Your task to perform on an android device: find which apps use the phone's location Image 0: 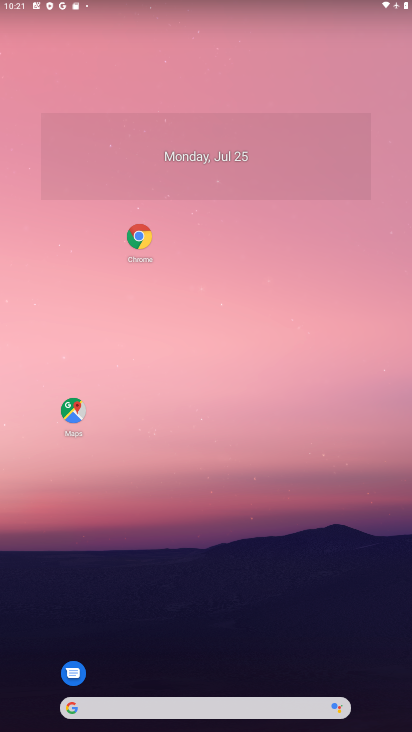
Step 0: drag from (254, 674) to (259, 152)
Your task to perform on an android device: find which apps use the phone's location Image 1: 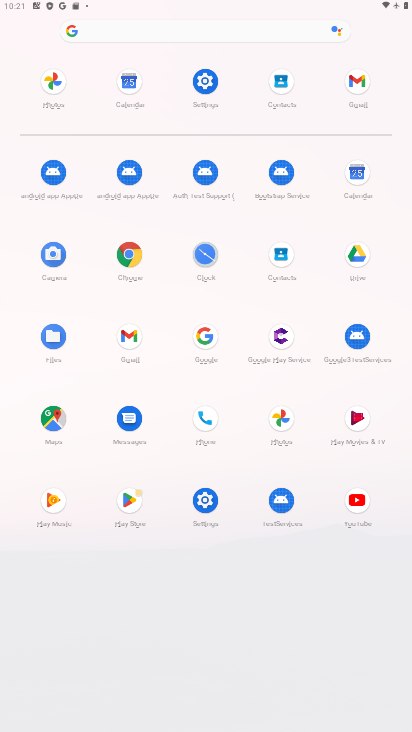
Step 1: click (205, 99)
Your task to perform on an android device: find which apps use the phone's location Image 2: 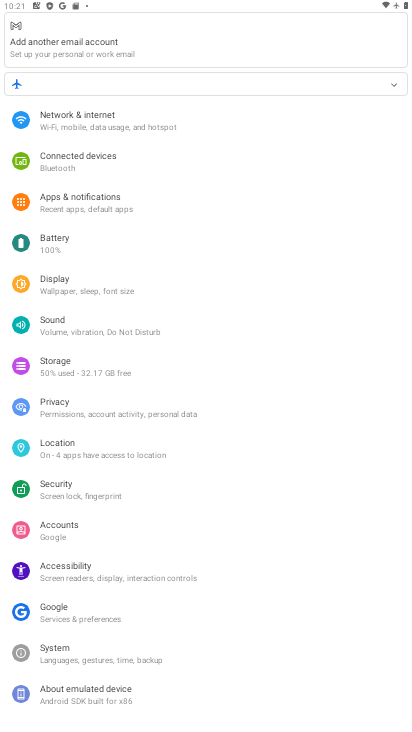
Step 2: task complete